Your task to perform on an android device: search for starred emails in the gmail app Image 0: 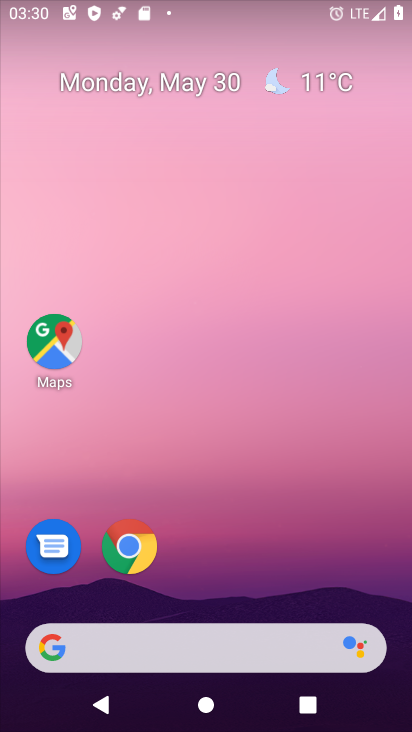
Step 0: click (324, 73)
Your task to perform on an android device: search for starred emails in the gmail app Image 1: 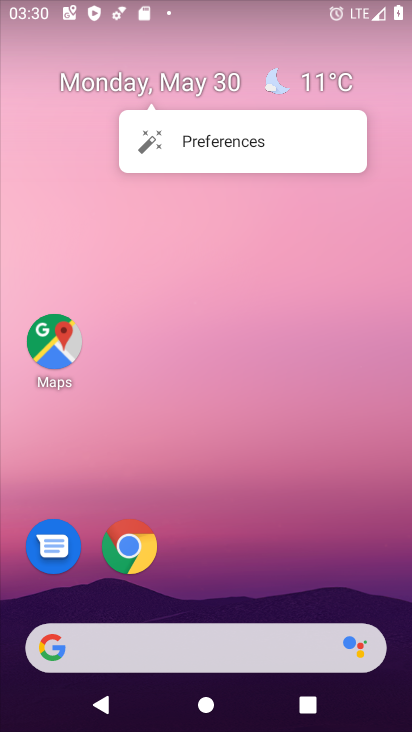
Step 1: click (316, 76)
Your task to perform on an android device: search for starred emails in the gmail app Image 2: 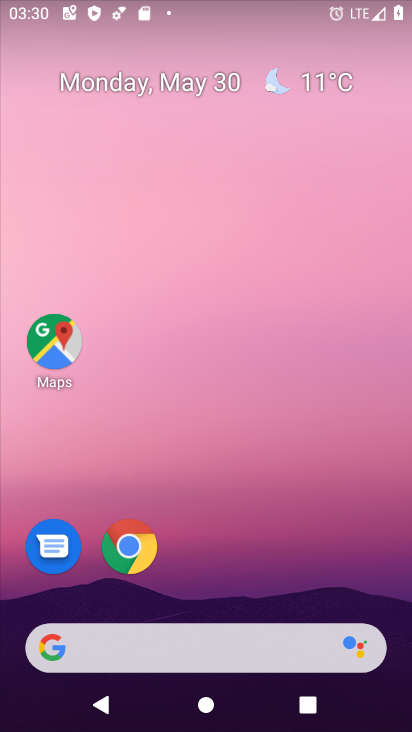
Step 2: drag from (248, 402) to (273, 168)
Your task to perform on an android device: search for starred emails in the gmail app Image 3: 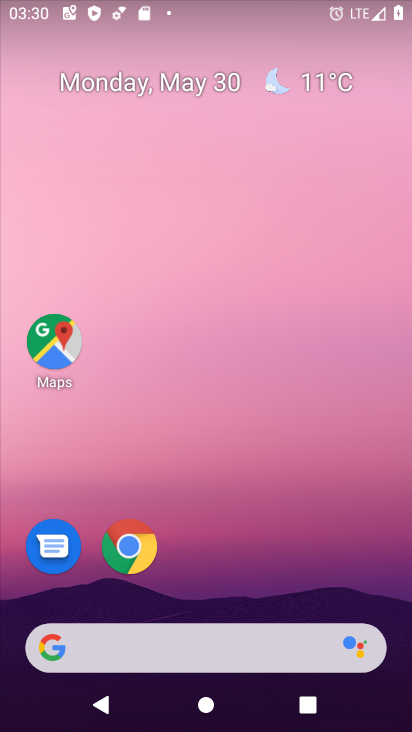
Step 3: drag from (210, 605) to (241, 67)
Your task to perform on an android device: search for starred emails in the gmail app Image 4: 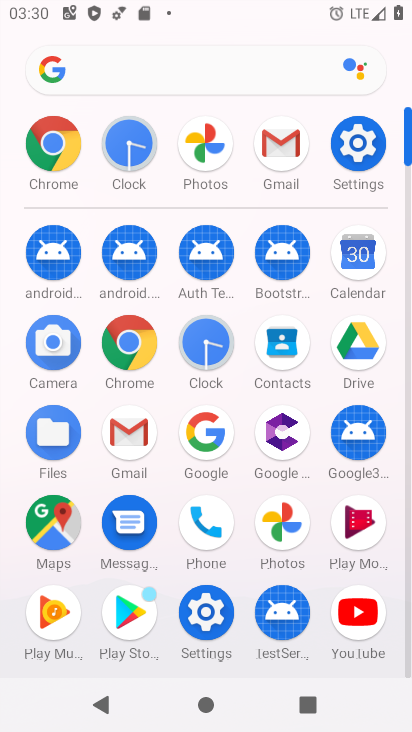
Step 4: click (285, 140)
Your task to perform on an android device: search for starred emails in the gmail app Image 5: 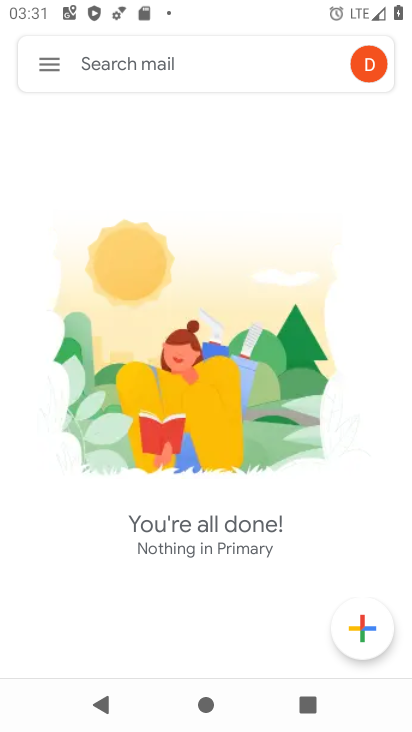
Step 5: click (40, 48)
Your task to perform on an android device: search for starred emails in the gmail app Image 6: 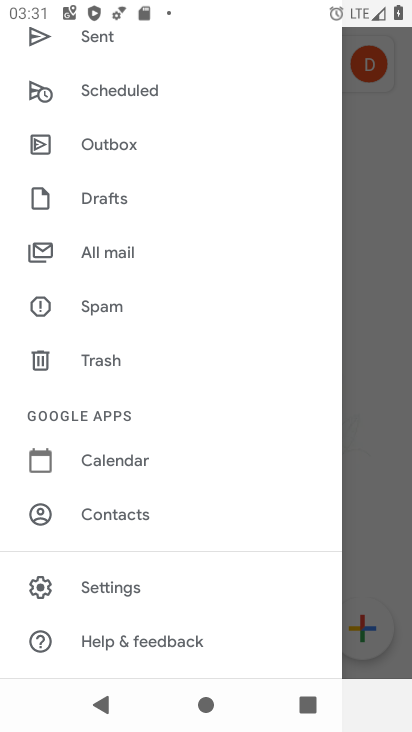
Step 6: drag from (110, 99) to (178, 654)
Your task to perform on an android device: search for starred emails in the gmail app Image 7: 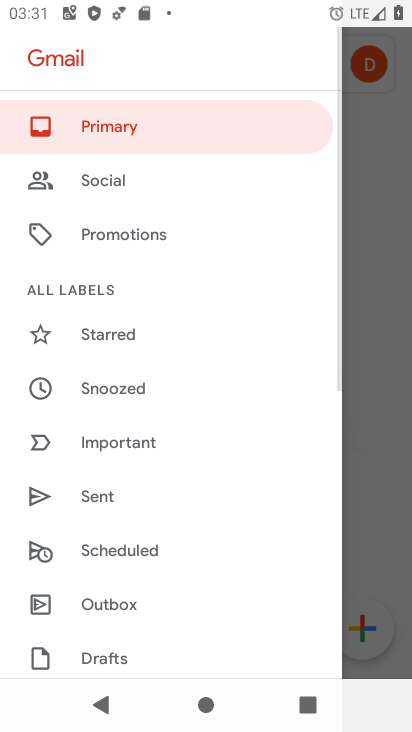
Step 7: click (100, 342)
Your task to perform on an android device: search for starred emails in the gmail app Image 8: 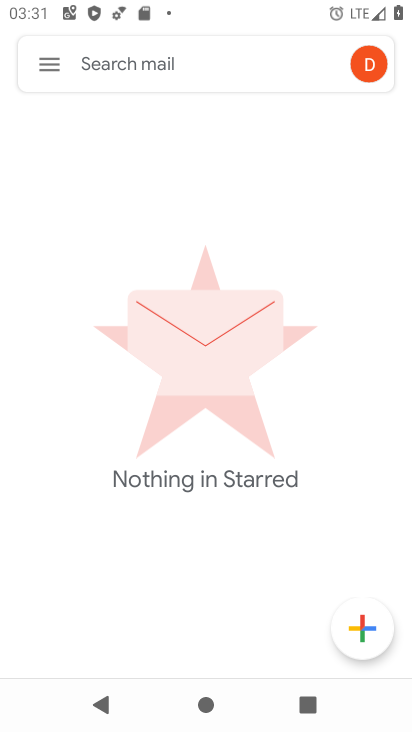
Step 8: task complete